Your task to perform on an android device: toggle airplane mode Image 0: 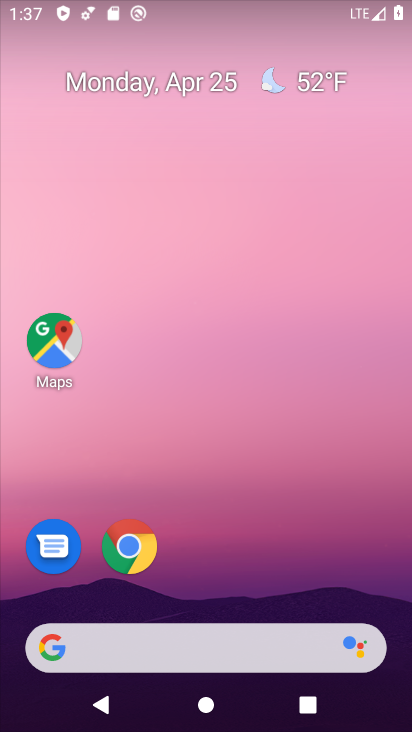
Step 0: drag from (197, 629) to (207, 318)
Your task to perform on an android device: toggle airplane mode Image 1: 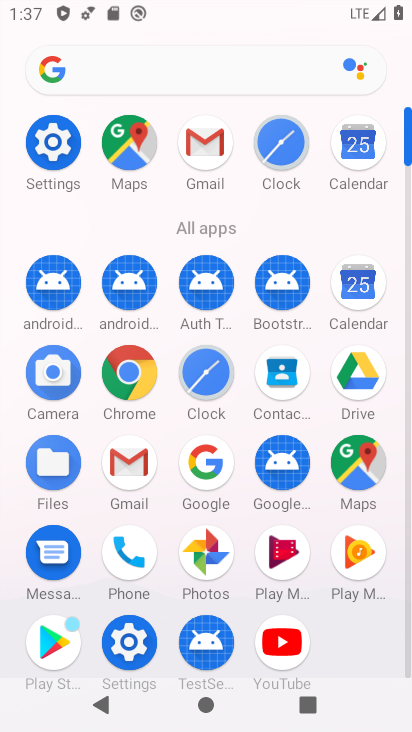
Step 1: click (127, 628)
Your task to perform on an android device: toggle airplane mode Image 2: 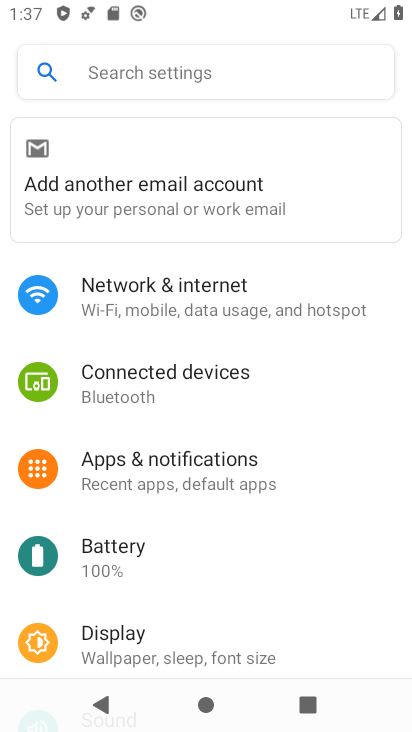
Step 2: click (104, 300)
Your task to perform on an android device: toggle airplane mode Image 3: 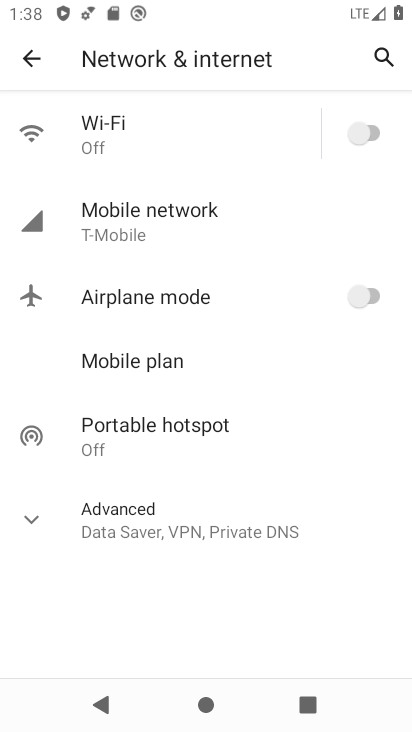
Step 3: click (371, 303)
Your task to perform on an android device: toggle airplane mode Image 4: 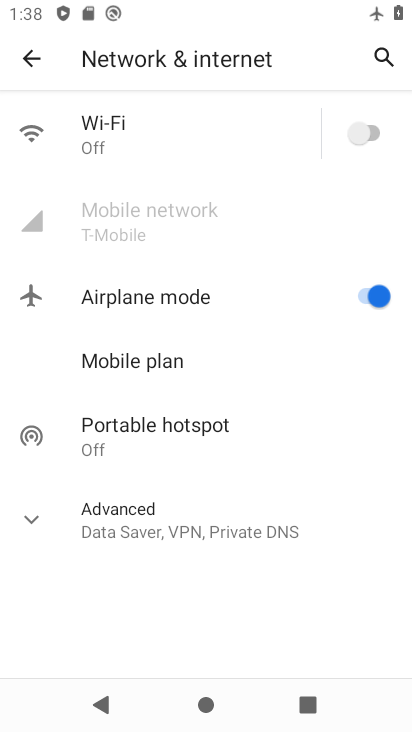
Step 4: task complete